Your task to perform on an android device: Open calendar and show me the second week of next month Image 0: 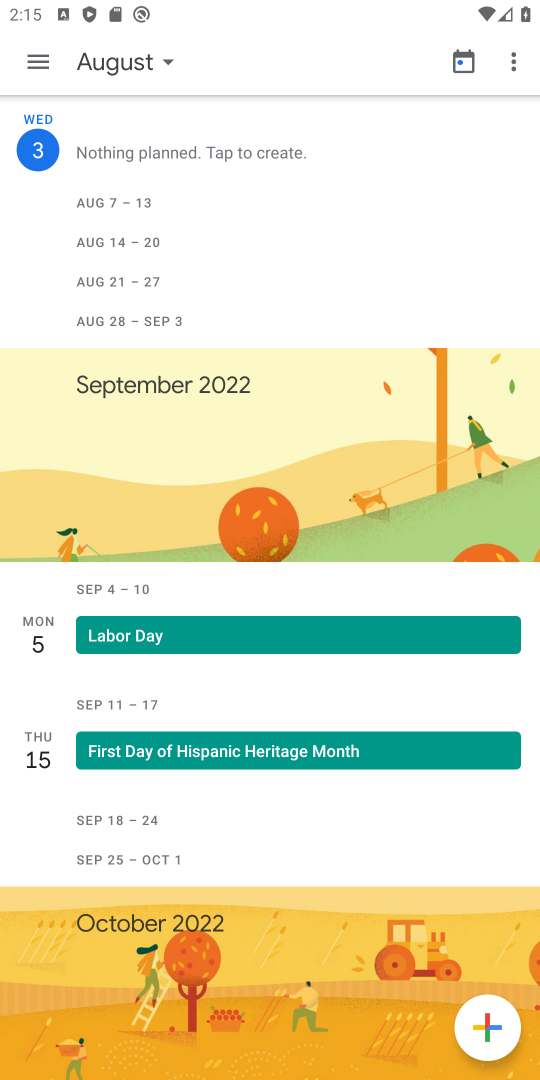
Step 0: click (166, 56)
Your task to perform on an android device: Open calendar and show me the second week of next month Image 1: 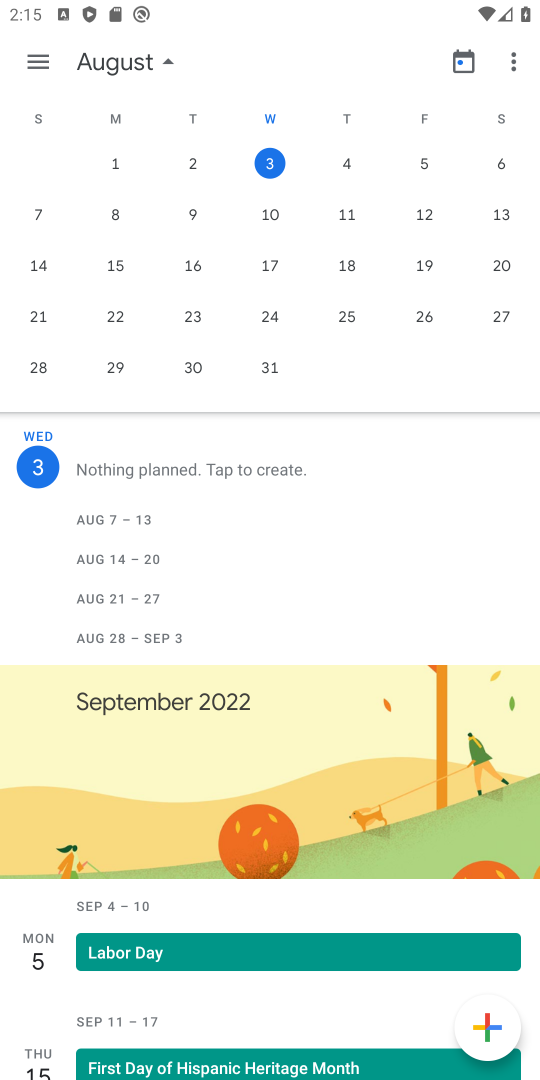
Step 1: click (278, 212)
Your task to perform on an android device: Open calendar and show me the second week of next month Image 2: 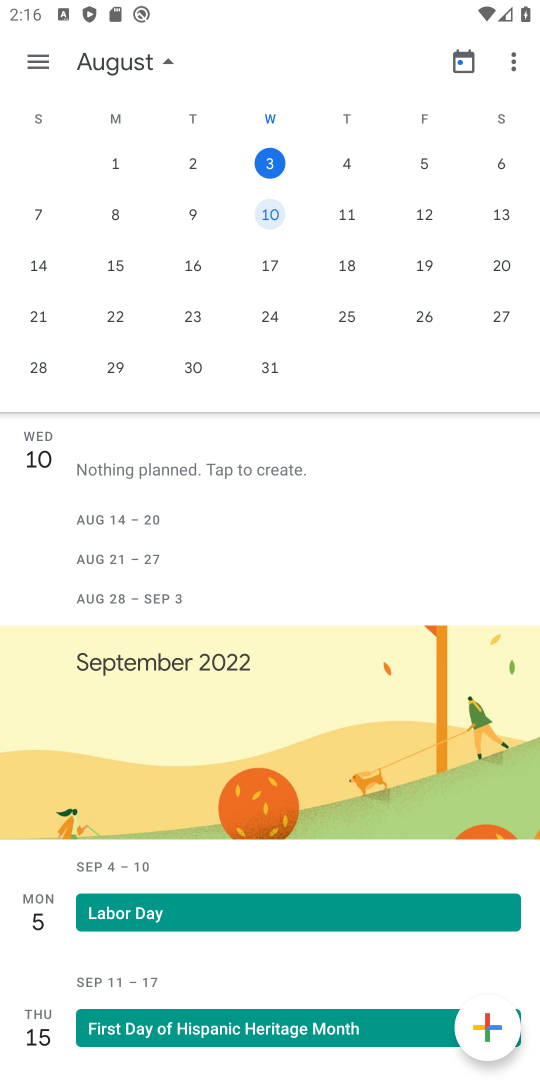
Step 2: click (267, 199)
Your task to perform on an android device: Open calendar and show me the second week of next month Image 3: 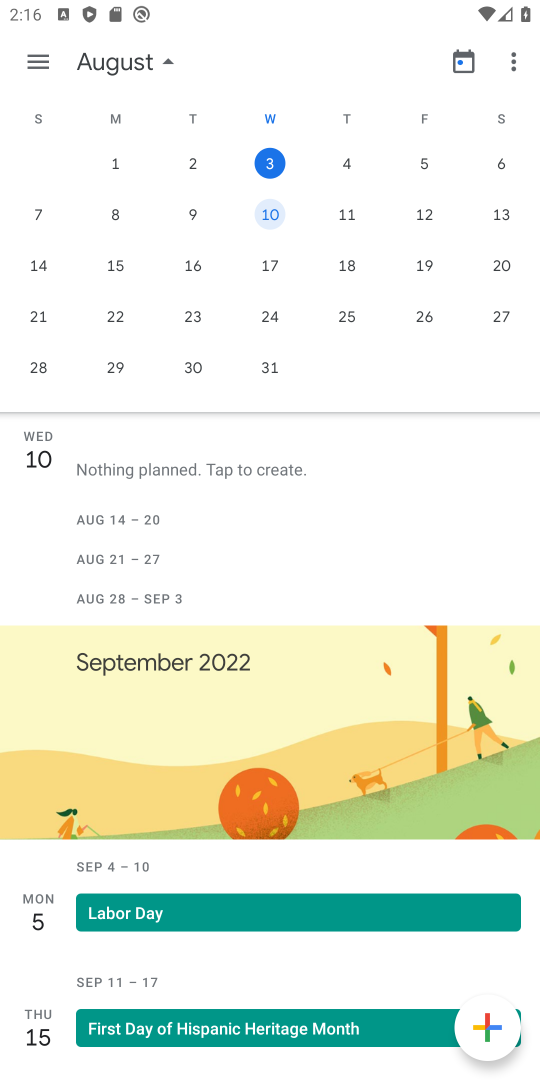
Step 3: click (64, 58)
Your task to perform on an android device: Open calendar and show me the second week of next month Image 4: 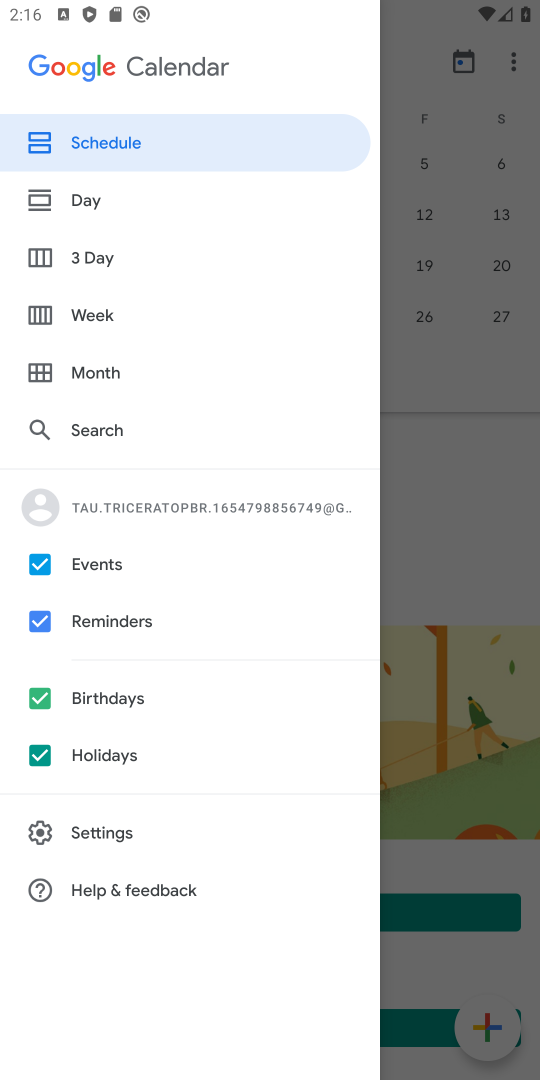
Step 4: click (104, 319)
Your task to perform on an android device: Open calendar and show me the second week of next month Image 5: 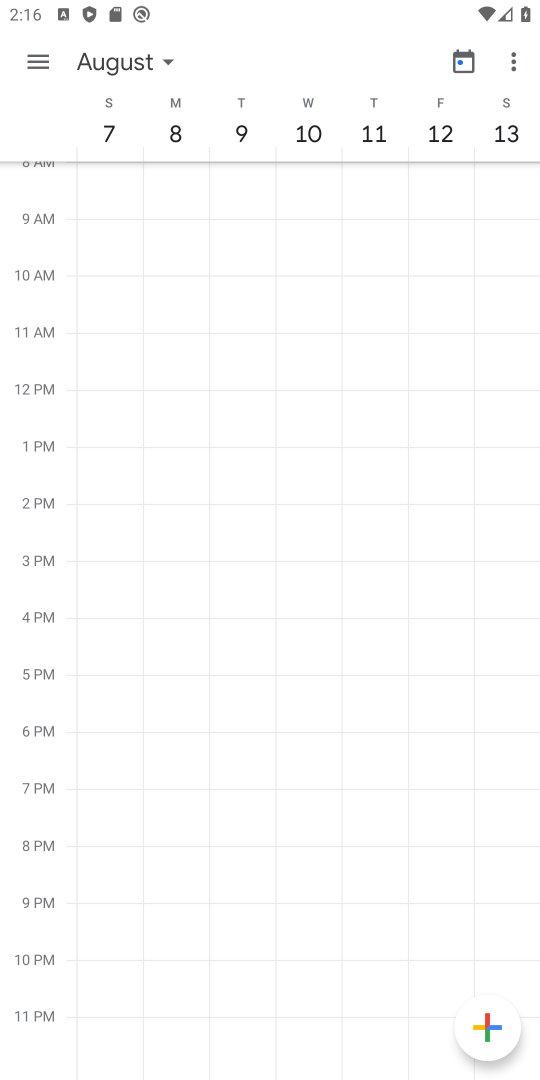
Step 5: task complete